Your task to perform on an android device: change alarm snooze length Image 0: 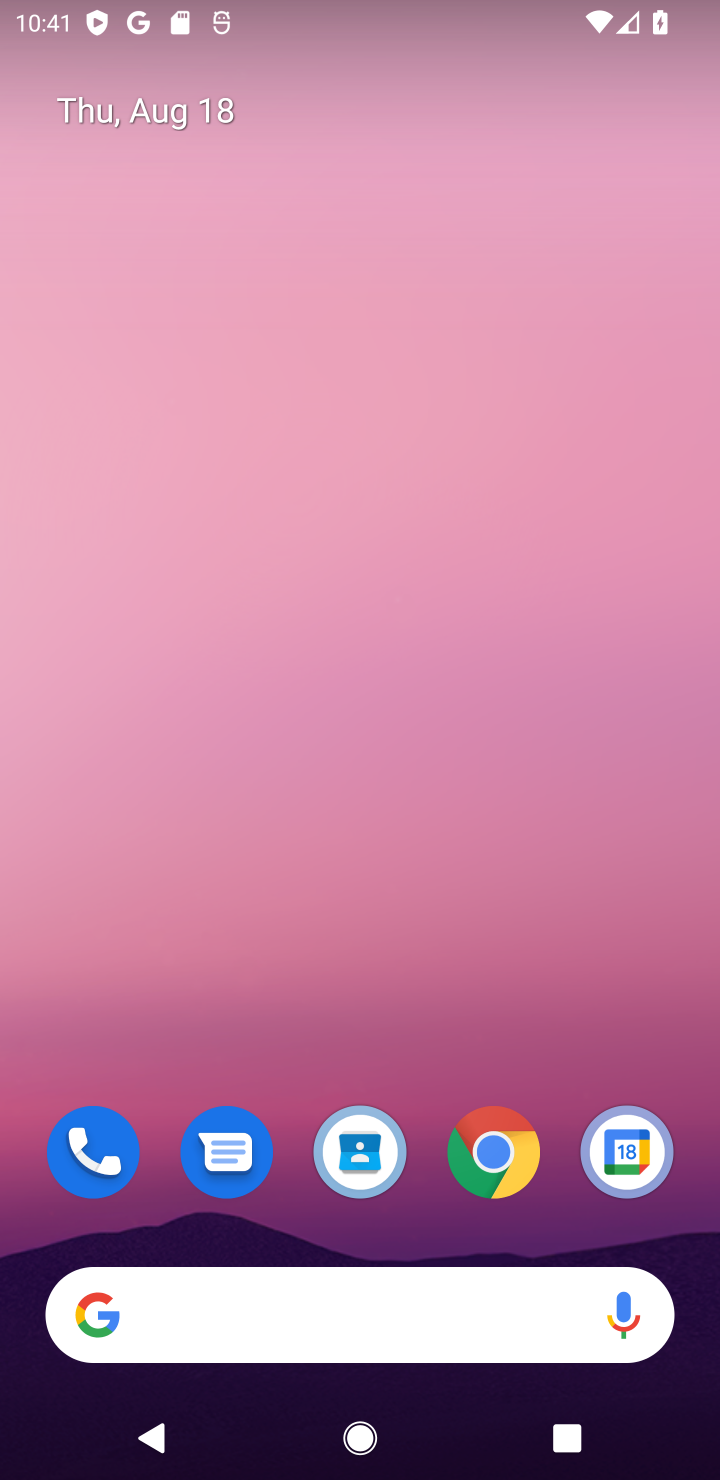
Step 0: drag from (365, 996) to (451, 0)
Your task to perform on an android device: change alarm snooze length Image 1: 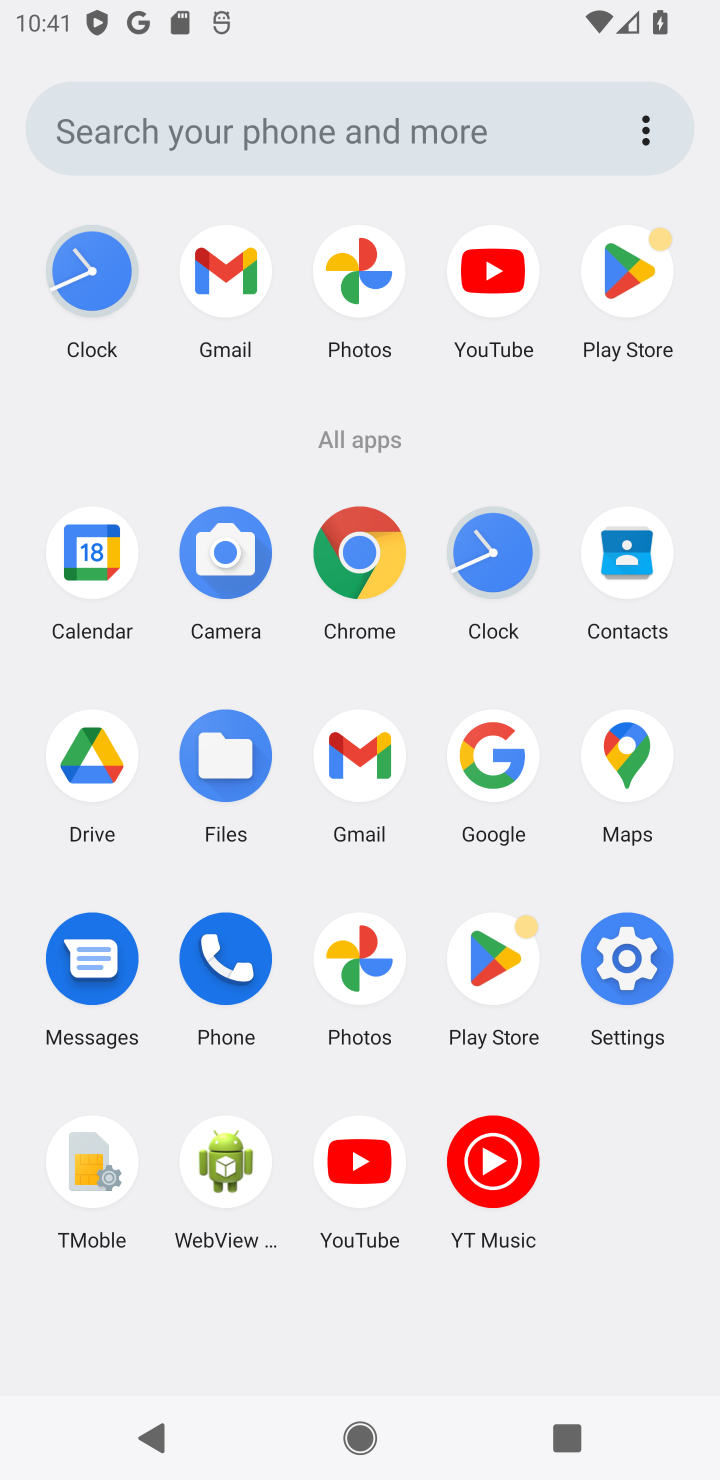
Step 1: click (104, 269)
Your task to perform on an android device: change alarm snooze length Image 2: 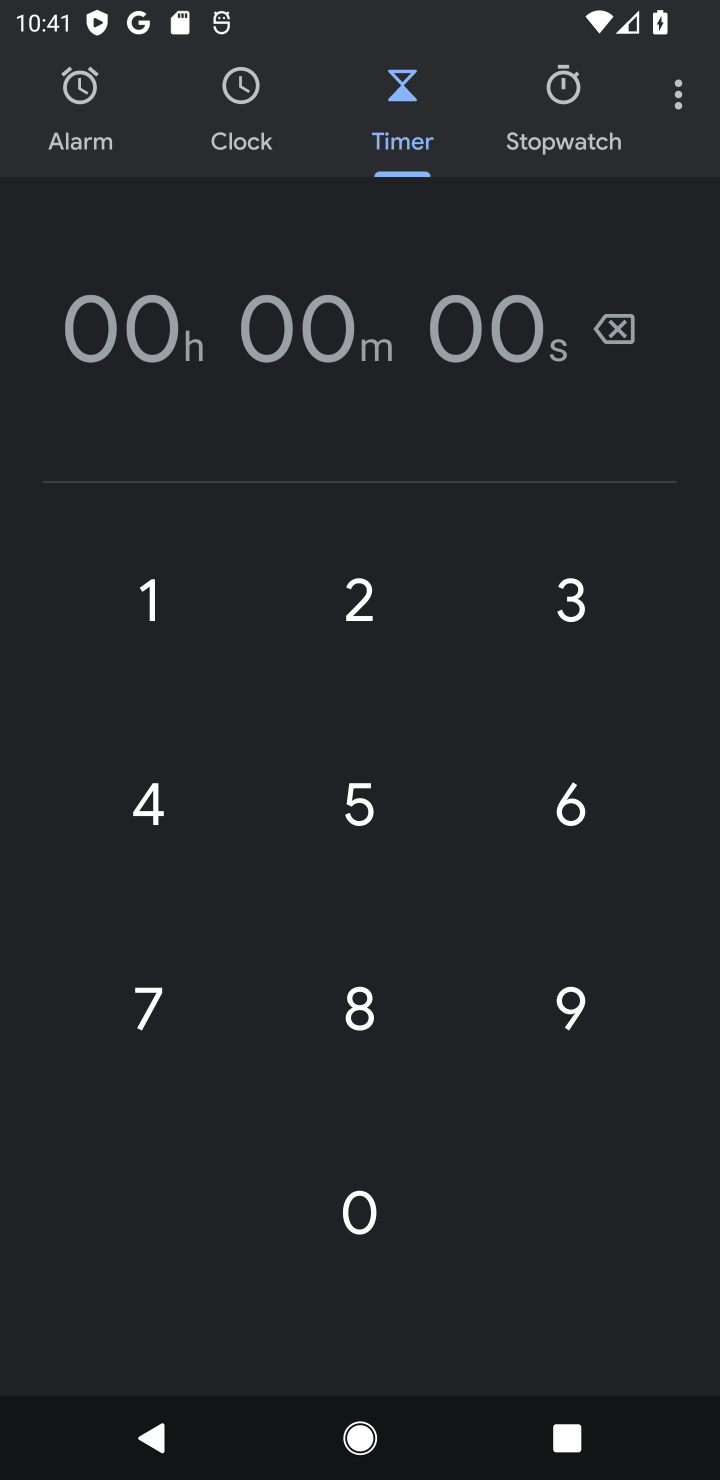
Step 2: click (677, 102)
Your task to perform on an android device: change alarm snooze length Image 3: 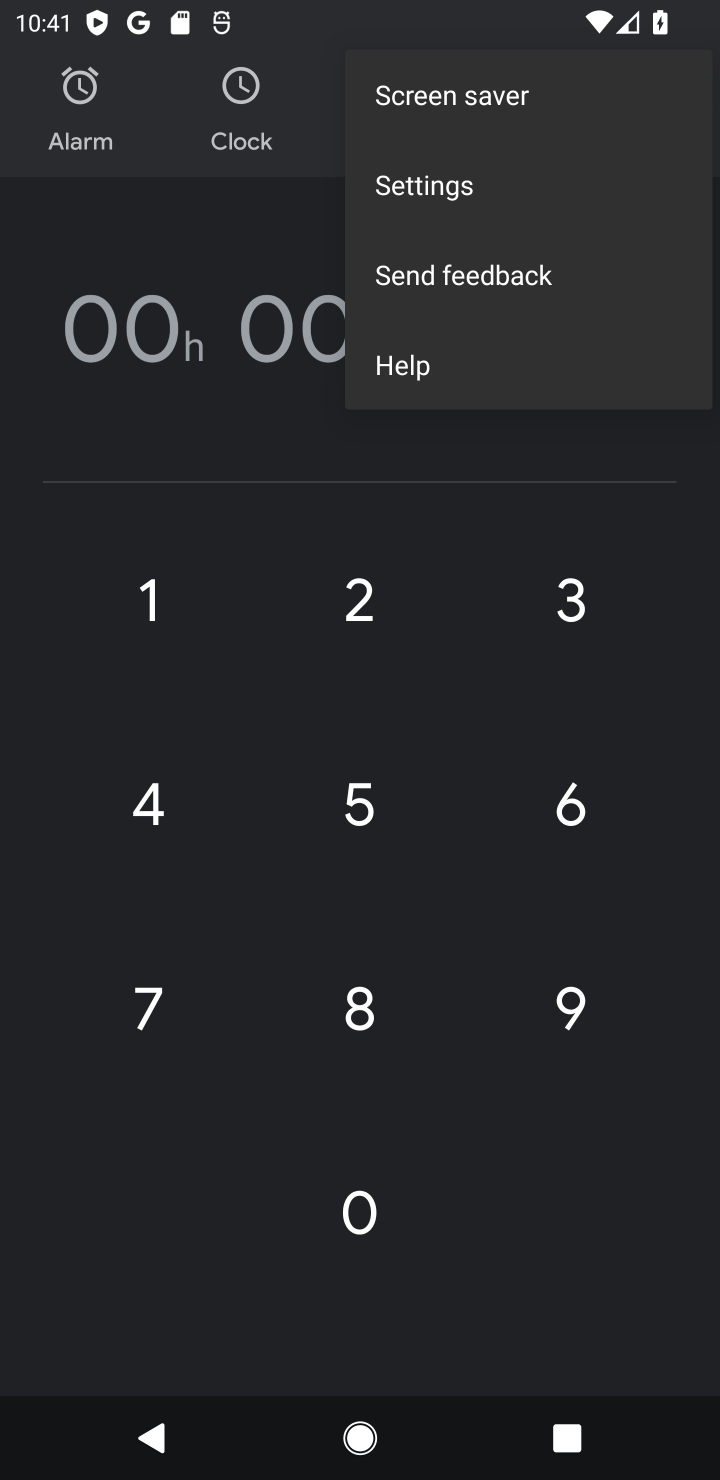
Step 3: click (499, 192)
Your task to perform on an android device: change alarm snooze length Image 4: 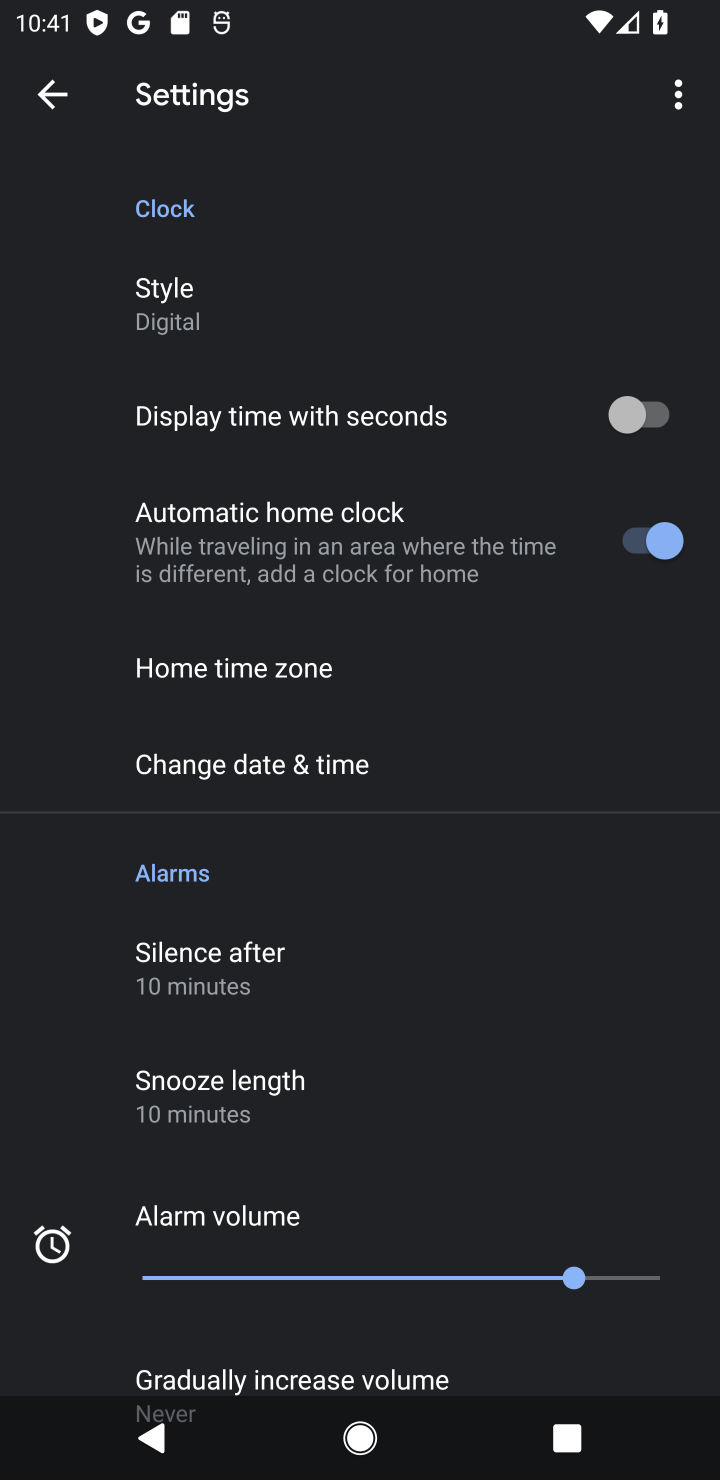
Step 4: click (265, 1078)
Your task to perform on an android device: change alarm snooze length Image 5: 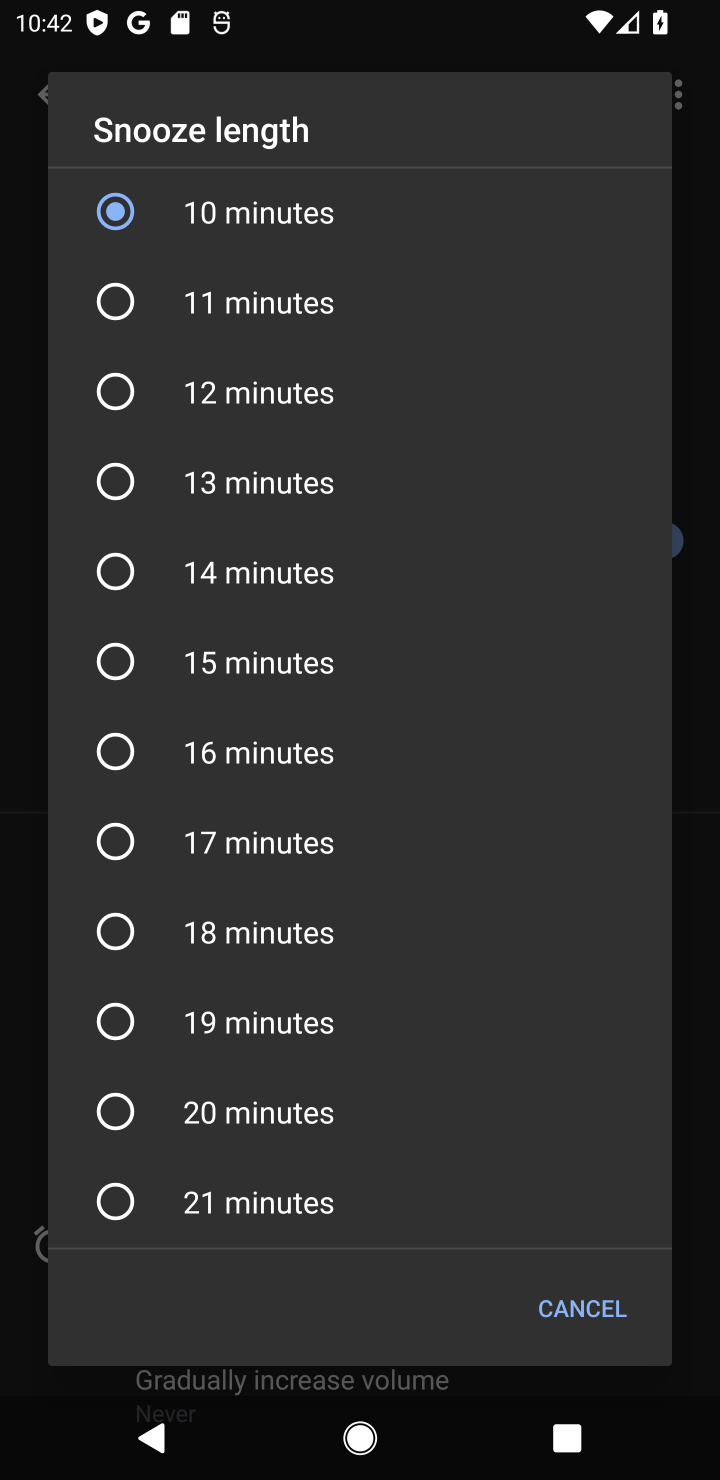
Step 5: click (128, 388)
Your task to perform on an android device: change alarm snooze length Image 6: 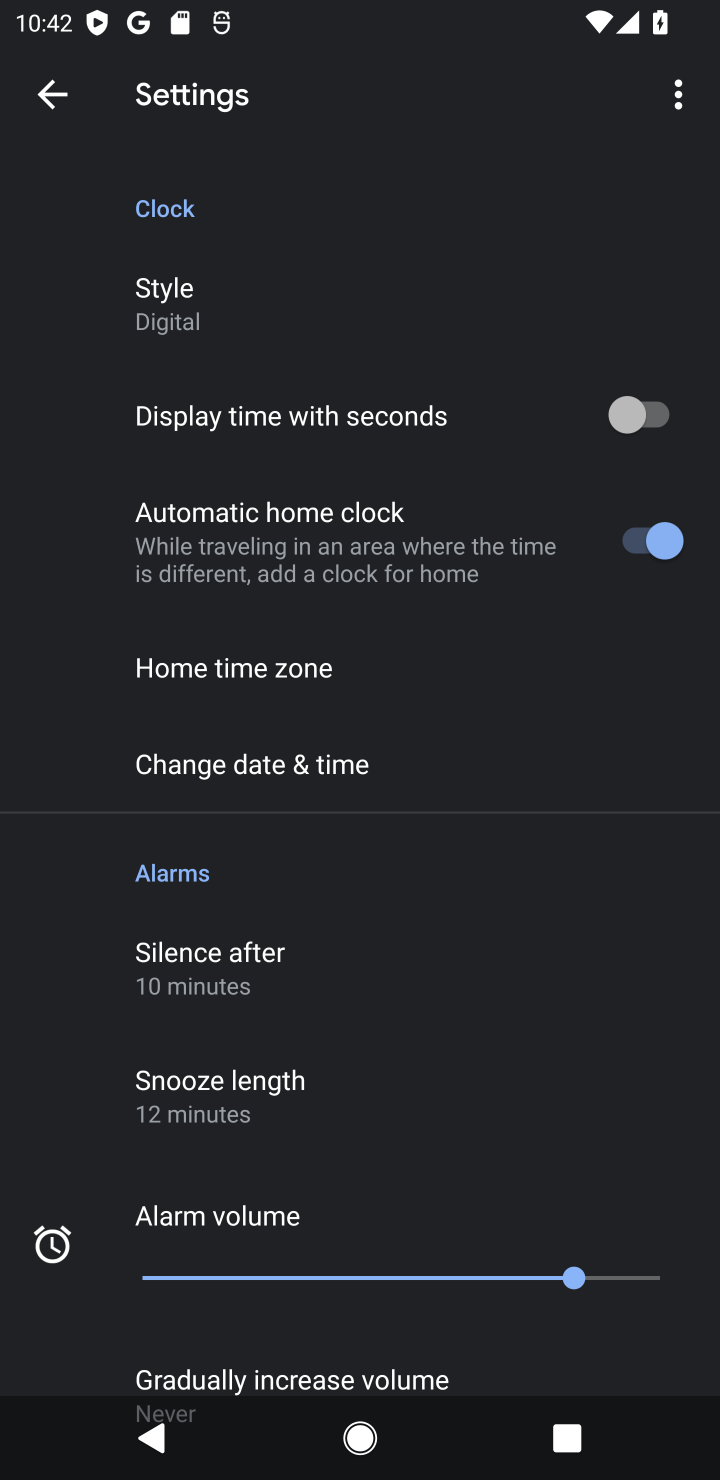
Step 6: task complete